Your task to perform on an android device: Show me popular games on the Play Store Image 0: 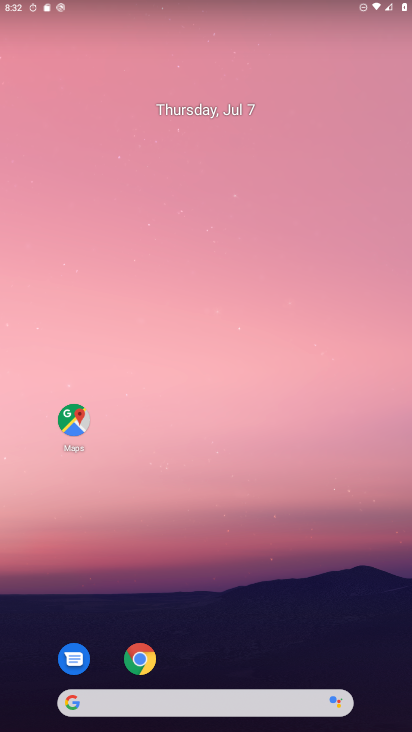
Step 0: drag from (372, 685) to (172, 84)
Your task to perform on an android device: Show me popular games on the Play Store Image 1: 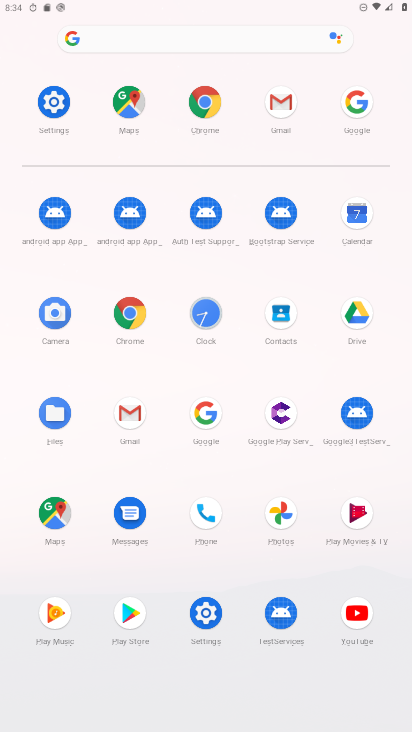
Step 1: click (121, 615)
Your task to perform on an android device: Show me popular games on the Play Store Image 2: 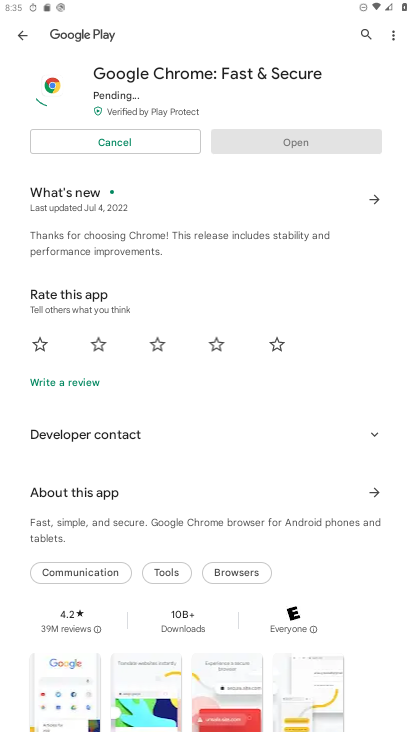
Step 2: press back button
Your task to perform on an android device: Show me popular games on the Play Store Image 3: 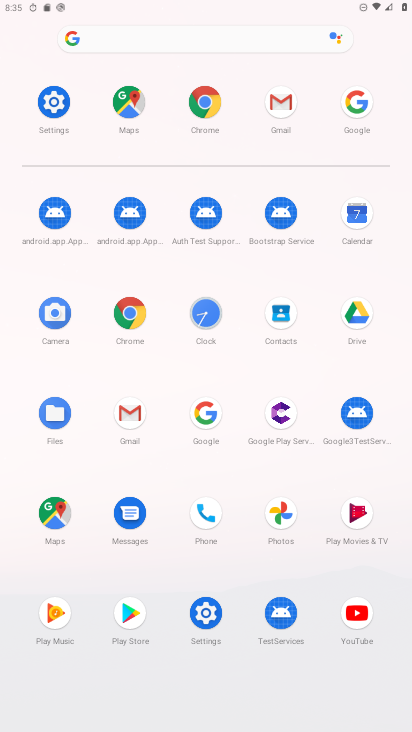
Step 3: click (162, 625)
Your task to perform on an android device: Show me popular games on the Play Store Image 4: 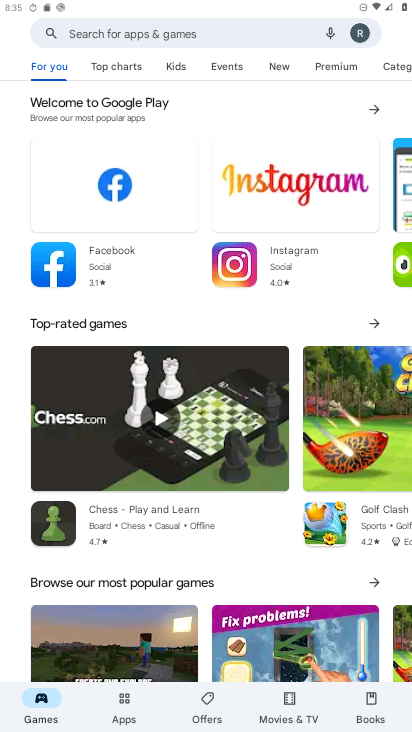
Step 4: click (136, 713)
Your task to perform on an android device: Show me popular games on the Play Store Image 5: 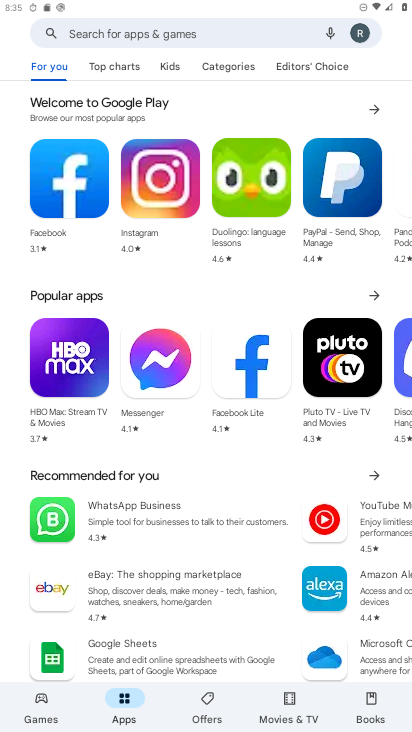
Step 5: task complete